Your task to perform on an android device: Open Android settings Image 0: 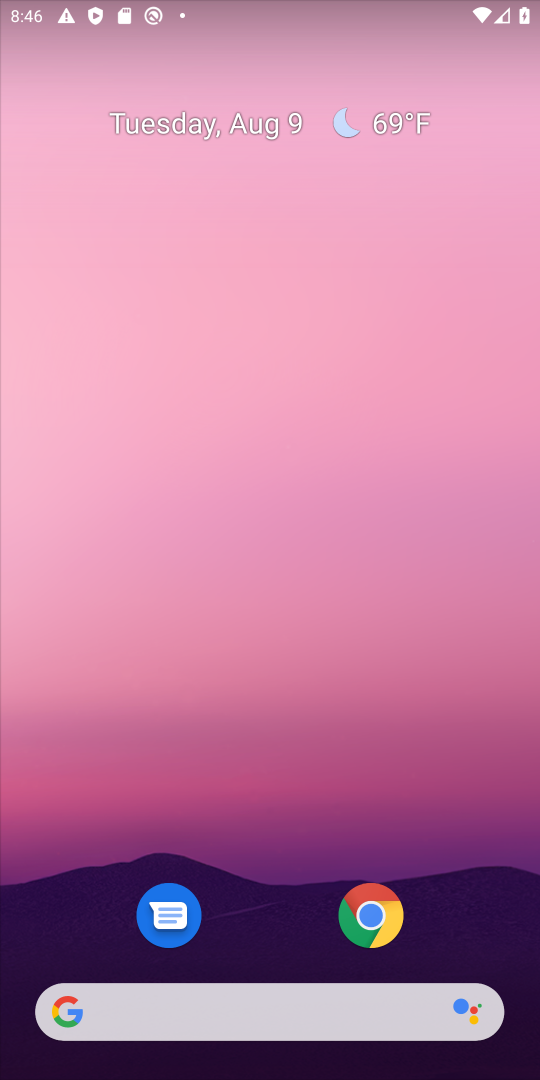
Step 0: drag from (282, 912) to (296, 191)
Your task to perform on an android device: Open Android settings Image 1: 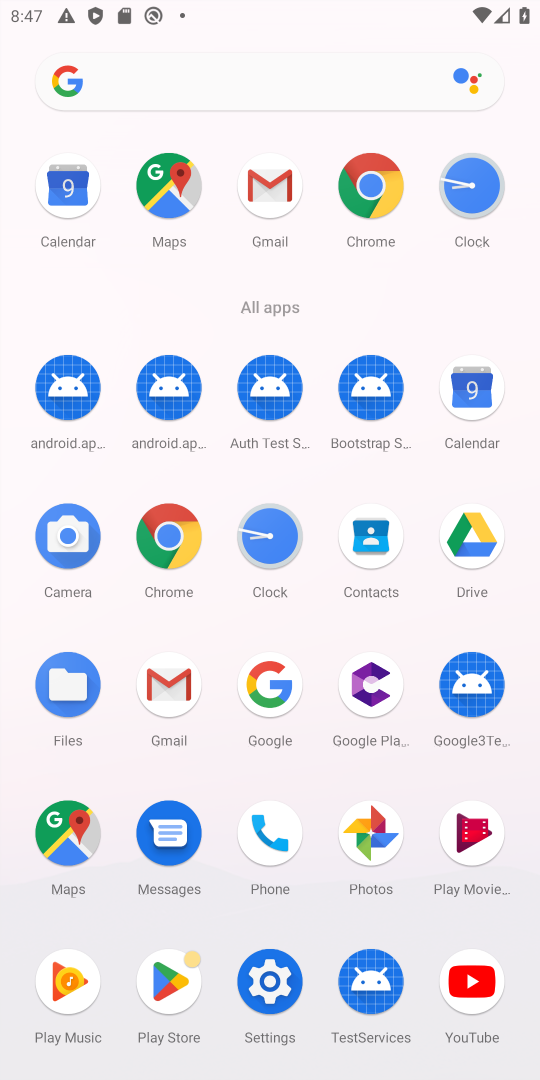
Step 1: click (264, 984)
Your task to perform on an android device: Open Android settings Image 2: 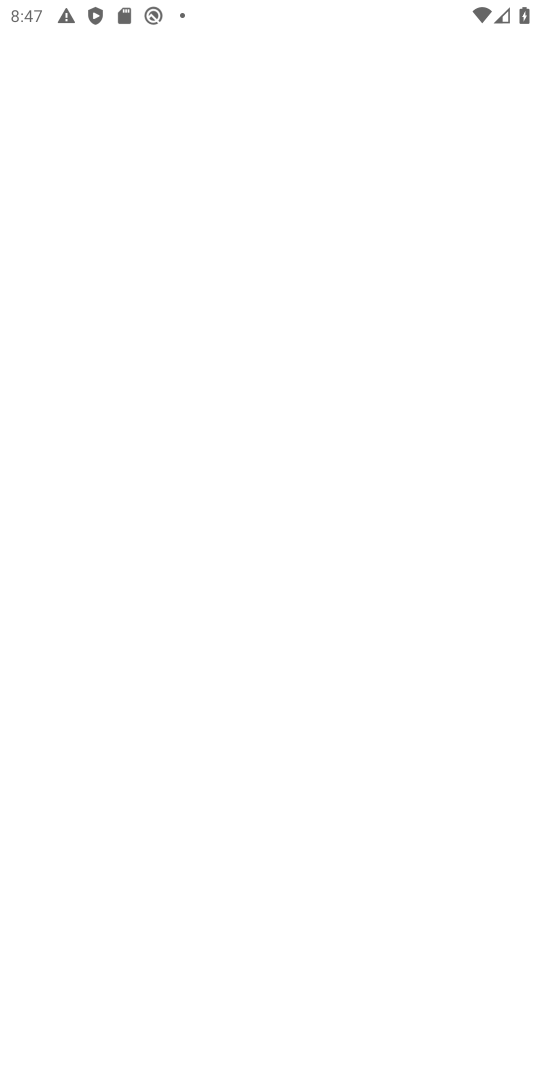
Step 2: click (264, 984)
Your task to perform on an android device: Open Android settings Image 3: 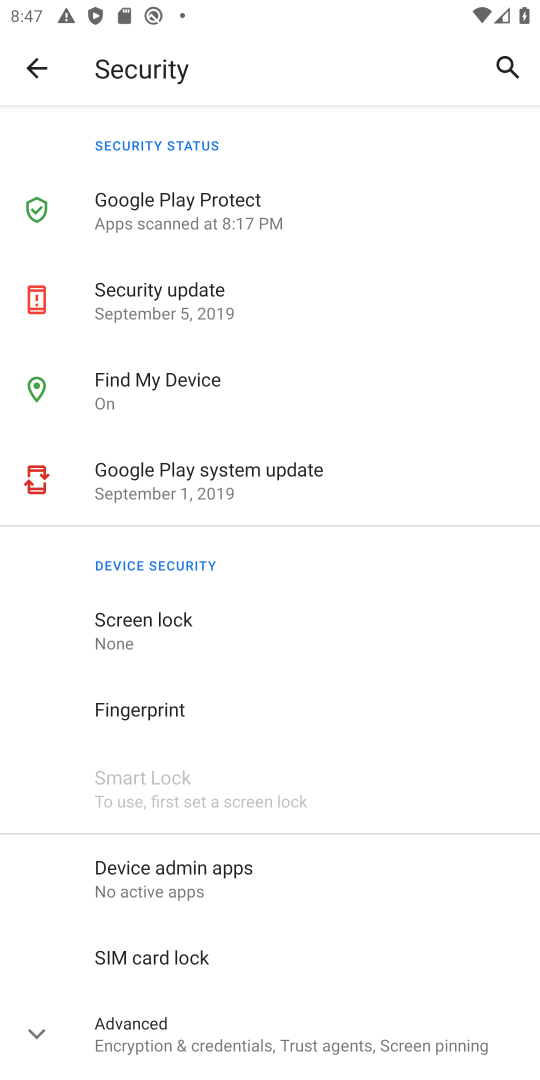
Step 3: click (32, 70)
Your task to perform on an android device: Open Android settings Image 4: 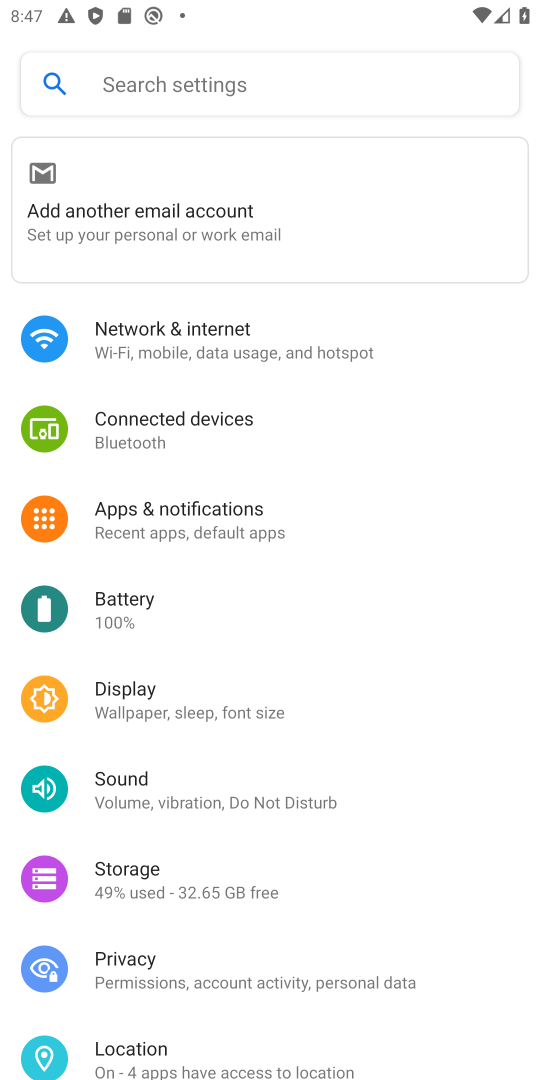
Step 4: drag from (421, 703) to (355, 91)
Your task to perform on an android device: Open Android settings Image 5: 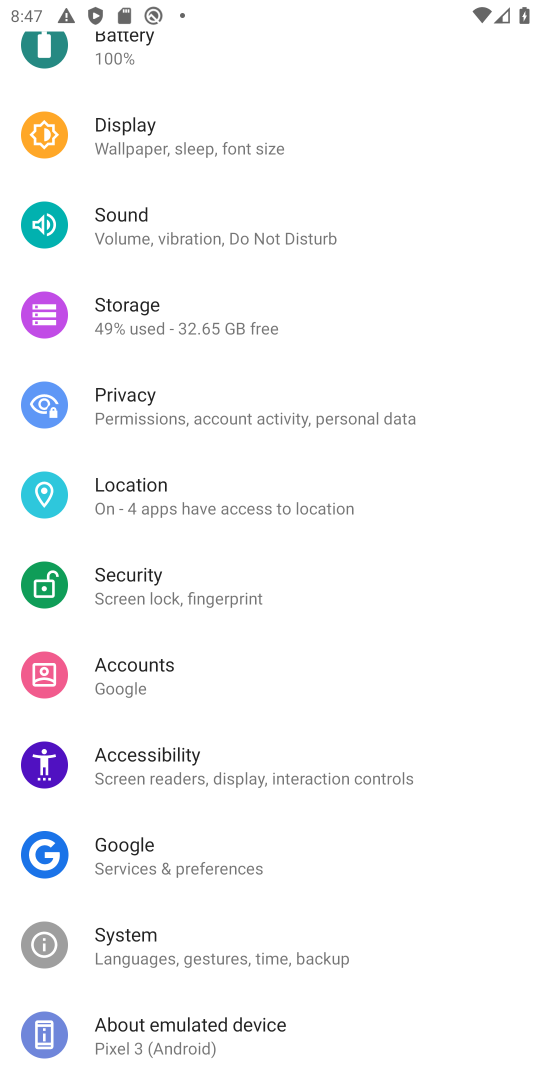
Step 5: click (190, 1033)
Your task to perform on an android device: Open Android settings Image 6: 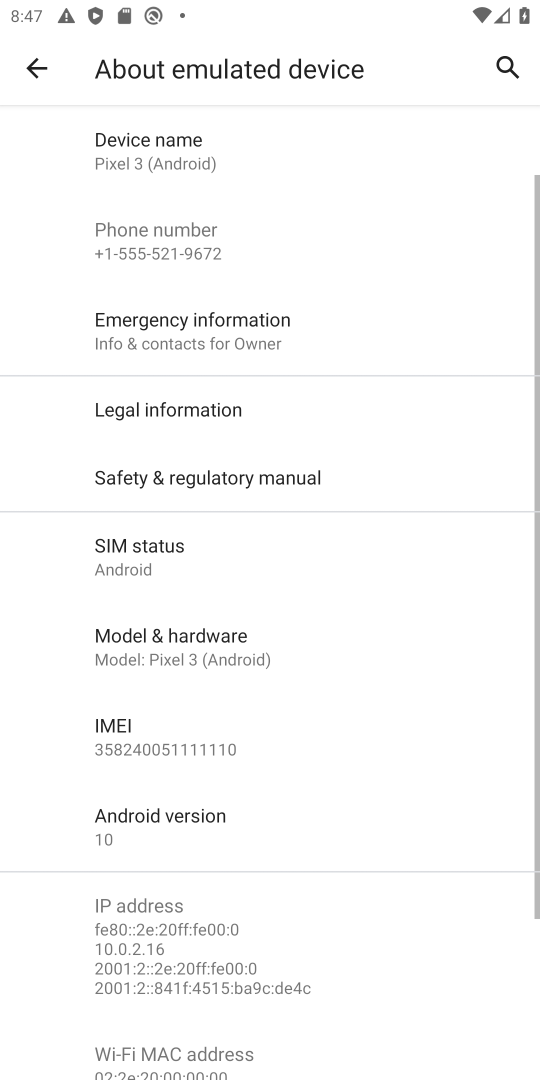
Step 6: click (190, 1033)
Your task to perform on an android device: Open Android settings Image 7: 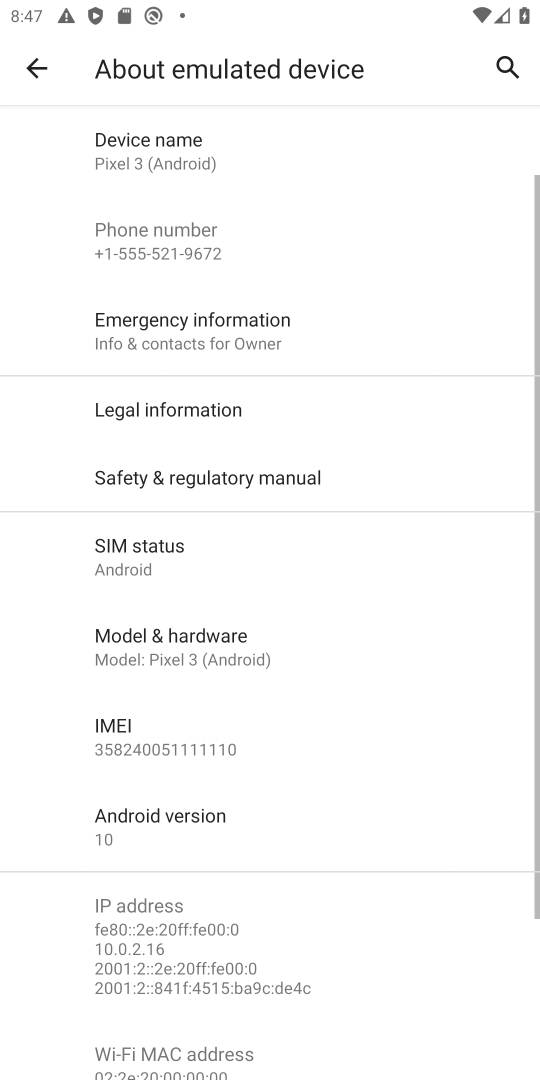
Step 7: click (208, 832)
Your task to perform on an android device: Open Android settings Image 8: 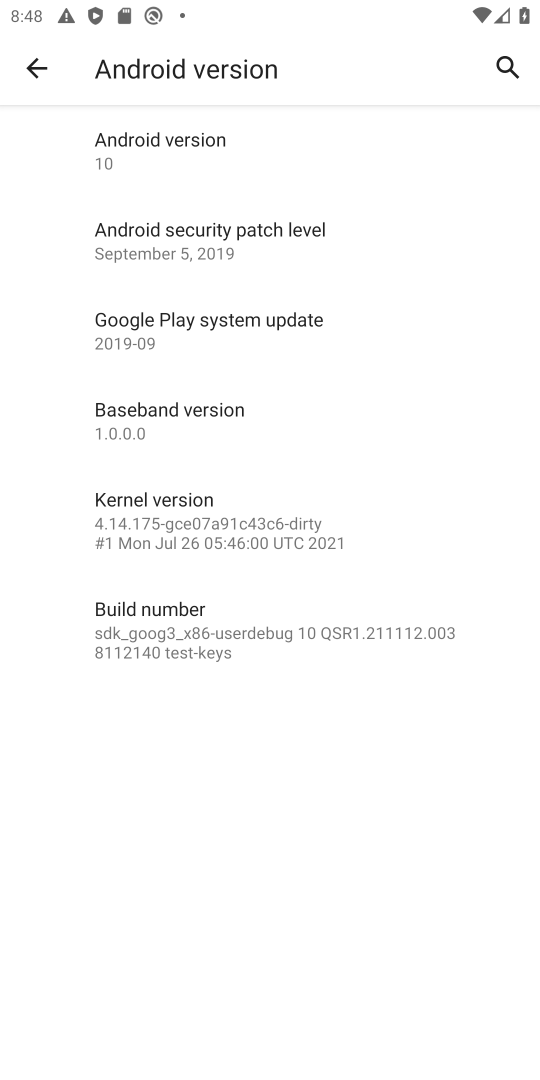
Step 8: task complete